Your task to perform on an android device: What's the weather? Image 0: 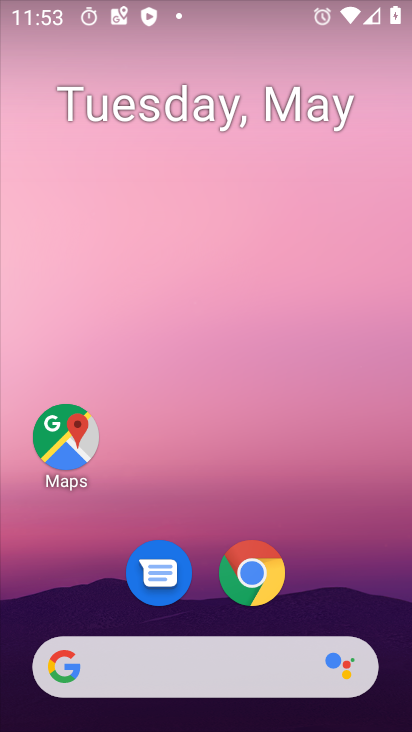
Step 0: drag from (239, 691) to (228, 310)
Your task to perform on an android device: What's the weather? Image 1: 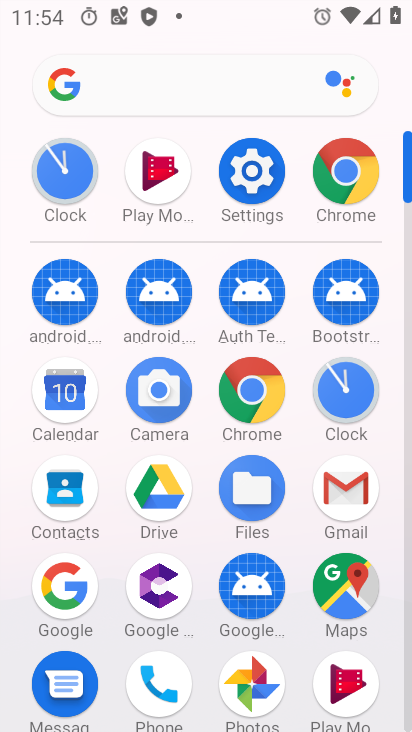
Step 1: click (202, 104)
Your task to perform on an android device: What's the weather? Image 2: 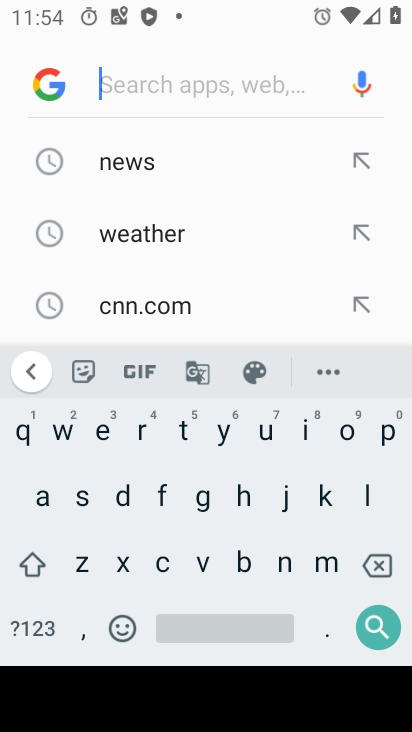
Step 2: click (151, 236)
Your task to perform on an android device: What's the weather? Image 3: 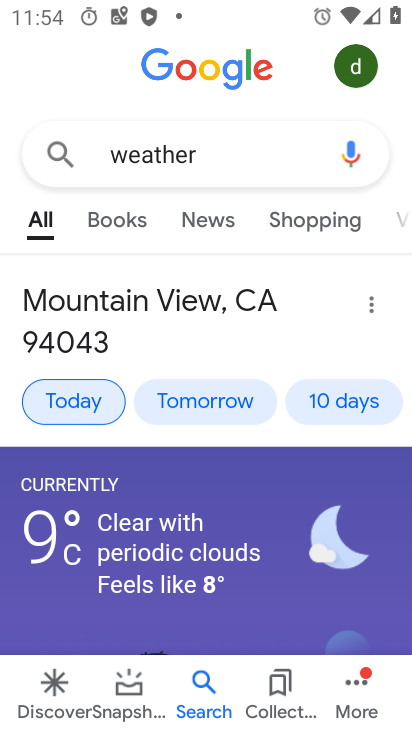
Step 3: task complete